Your task to perform on an android device: find snoozed emails in the gmail app Image 0: 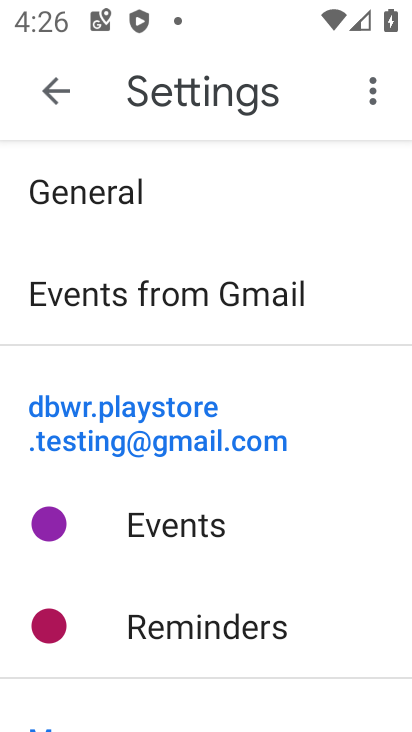
Step 0: press home button
Your task to perform on an android device: find snoozed emails in the gmail app Image 1: 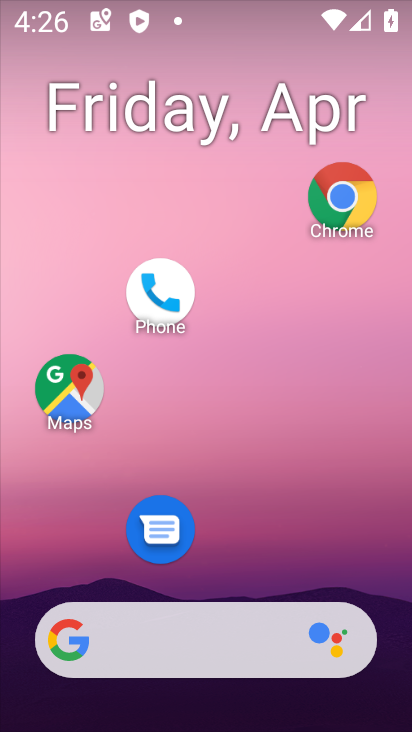
Step 1: drag from (254, 575) to (238, 53)
Your task to perform on an android device: find snoozed emails in the gmail app Image 2: 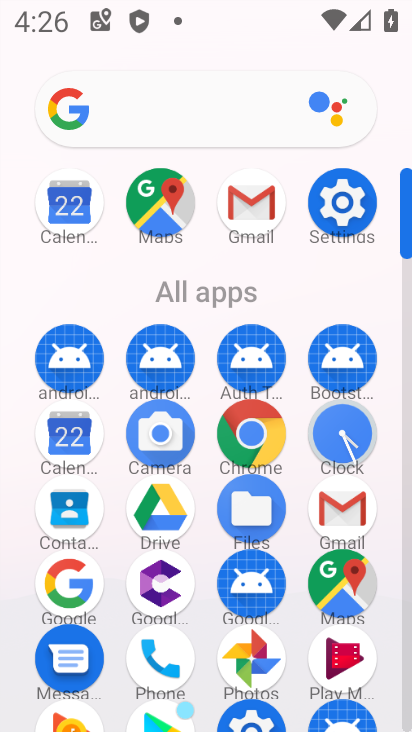
Step 2: click (342, 500)
Your task to perform on an android device: find snoozed emails in the gmail app Image 3: 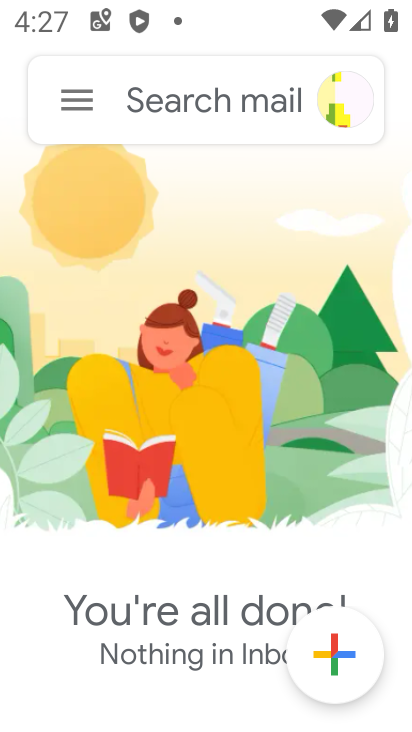
Step 3: click (78, 85)
Your task to perform on an android device: find snoozed emails in the gmail app Image 4: 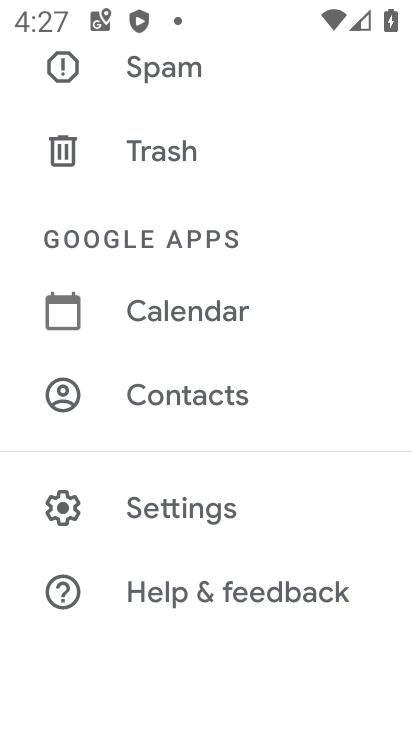
Step 4: drag from (177, 91) to (161, 730)
Your task to perform on an android device: find snoozed emails in the gmail app Image 5: 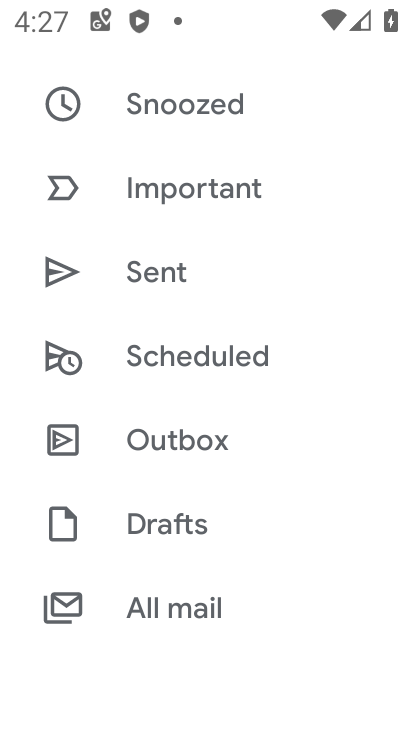
Step 5: click (104, 109)
Your task to perform on an android device: find snoozed emails in the gmail app Image 6: 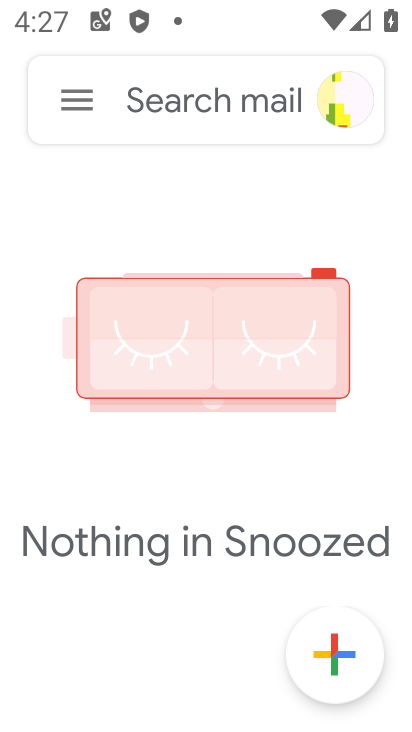
Step 6: task complete